Your task to perform on an android device: Go to display settings Image 0: 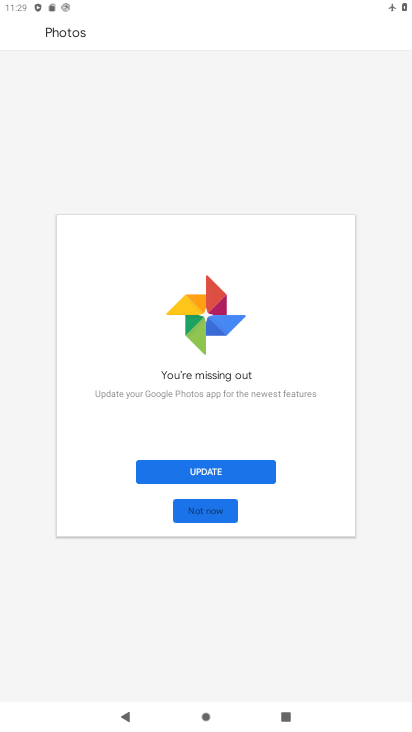
Step 0: press home button
Your task to perform on an android device: Go to display settings Image 1: 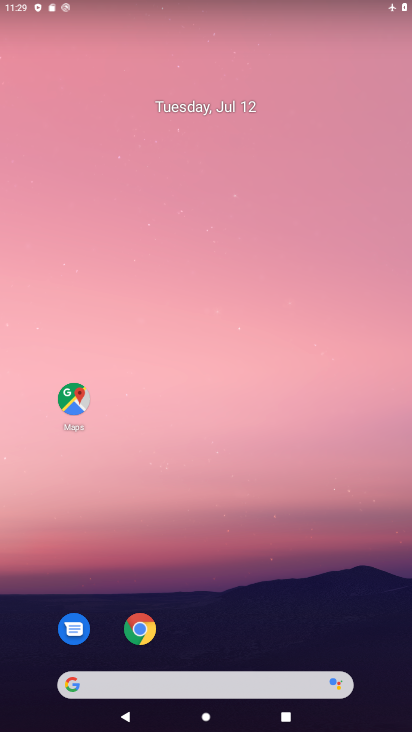
Step 1: drag from (220, 653) to (183, 254)
Your task to perform on an android device: Go to display settings Image 2: 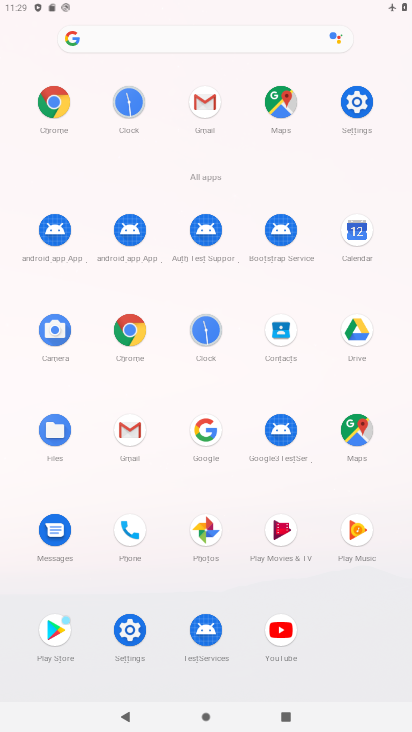
Step 2: click (362, 90)
Your task to perform on an android device: Go to display settings Image 3: 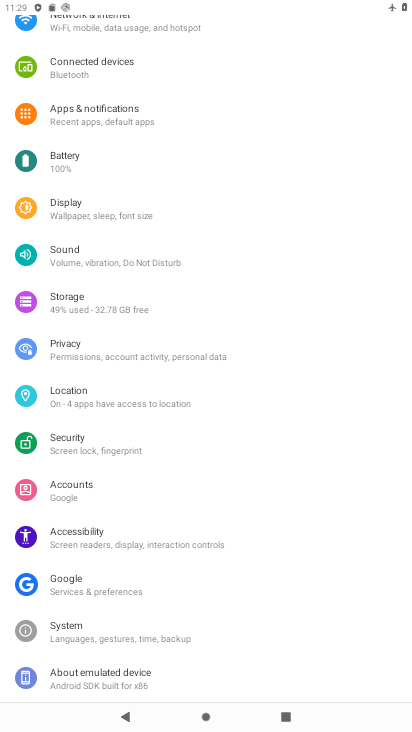
Step 3: click (81, 216)
Your task to perform on an android device: Go to display settings Image 4: 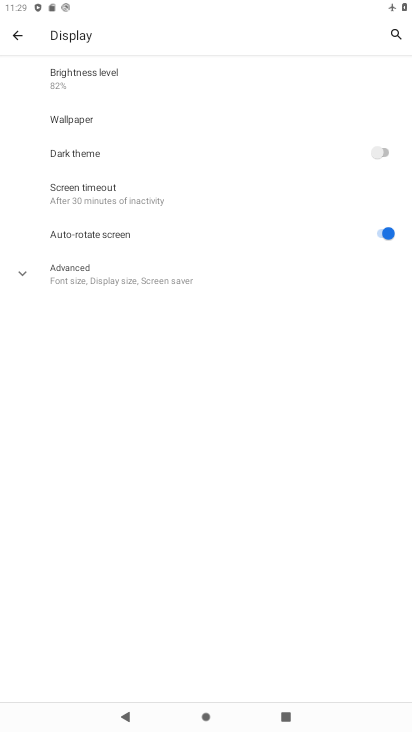
Step 4: click (62, 270)
Your task to perform on an android device: Go to display settings Image 5: 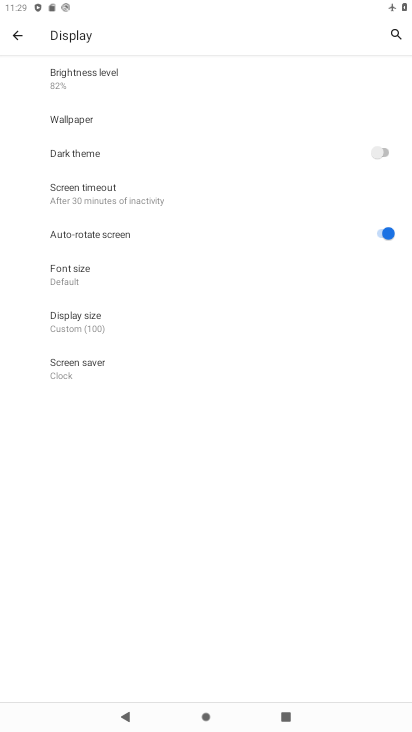
Step 5: task complete